Your task to perform on an android device: see sites visited before in the chrome app Image 0: 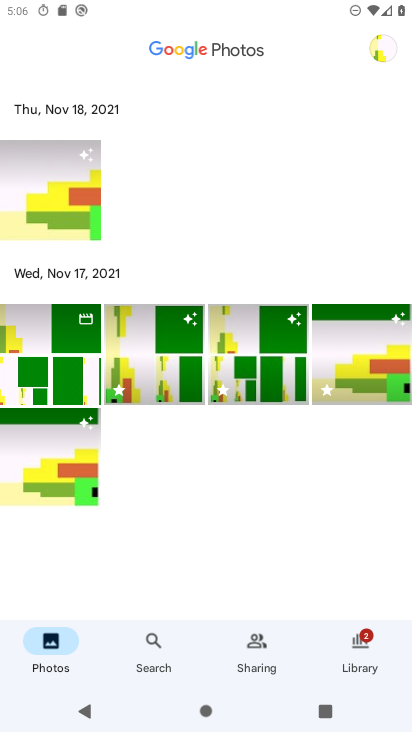
Step 0: press home button
Your task to perform on an android device: see sites visited before in the chrome app Image 1: 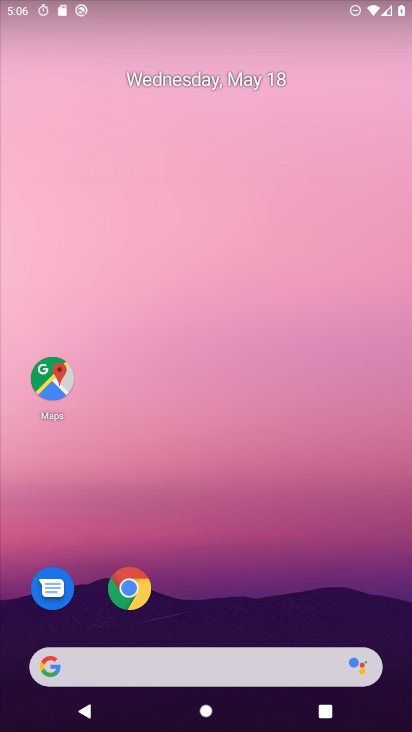
Step 1: click (126, 597)
Your task to perform on an android device: see sites visited before in the chrome app Image 2: 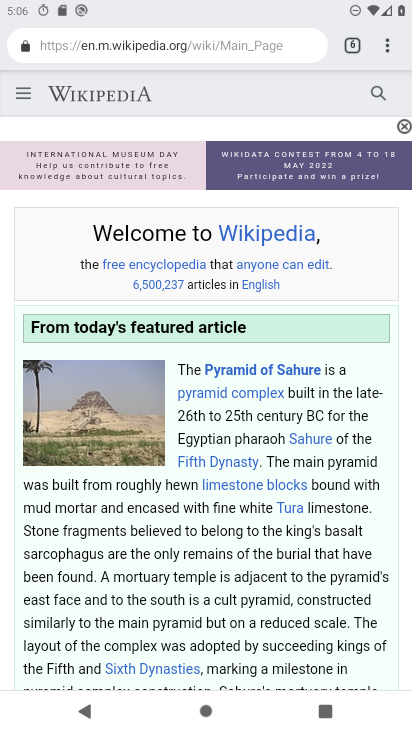
Step 2: drag from (384, 35) to (215, 557)
Your task to perform on an android device: see sites visited before in the chrome app Image 3: 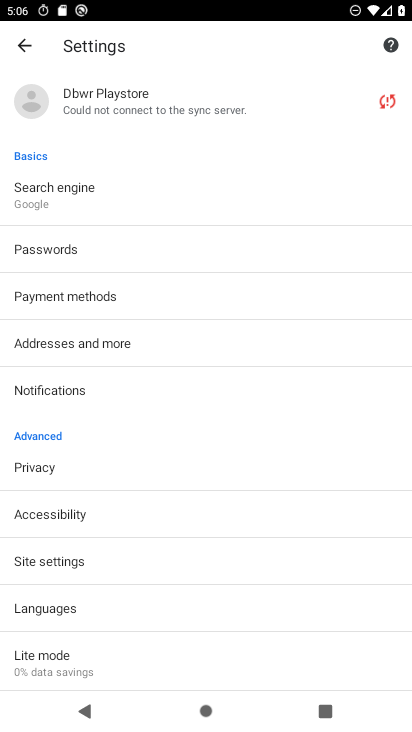
Step 3: click (67, 557)
Your task to perform on an android device: see sites visited before in the chrome app Image 4: 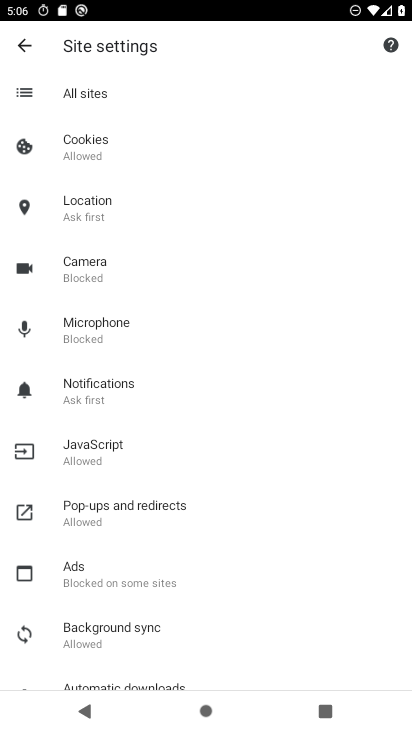
Step 4: click (84, 100)
Your task to perform on an android device: see sites visited before in the chrome app Image 5: 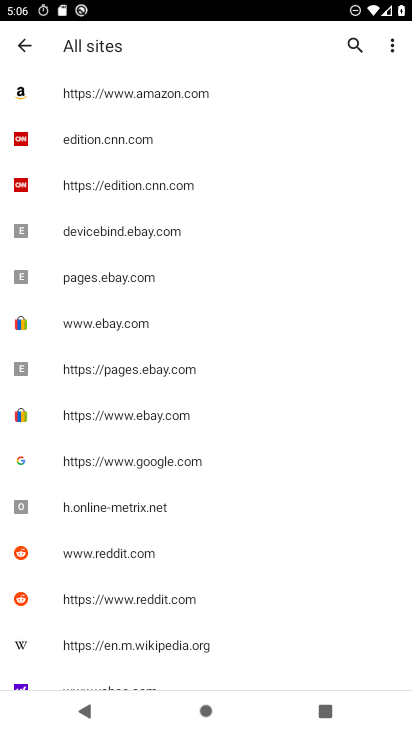
Step 5: click (85, 90)
Your task to perform on an android device: see sites visited before in the chrome app Image 6: 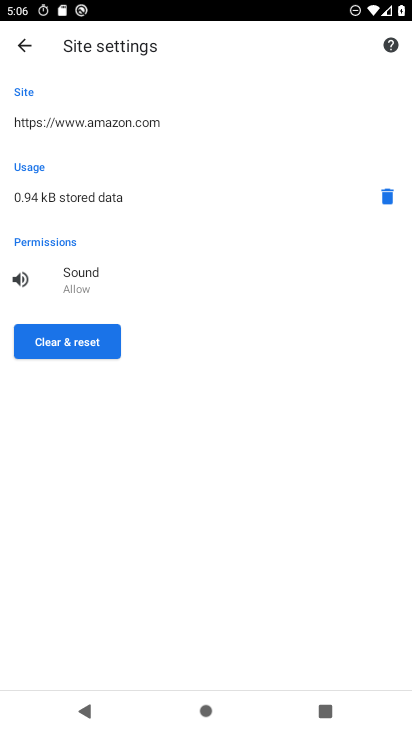
Step 6: task complete